Your task to perform on an android device: What is the news today? Image 0: 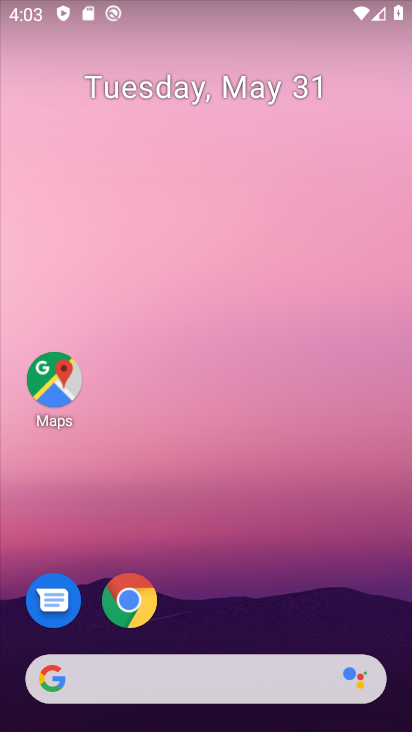
Step 0: drag from (243, 601) to (160, 103)
Your task to perform on an android device: What is the news today? Image 1: 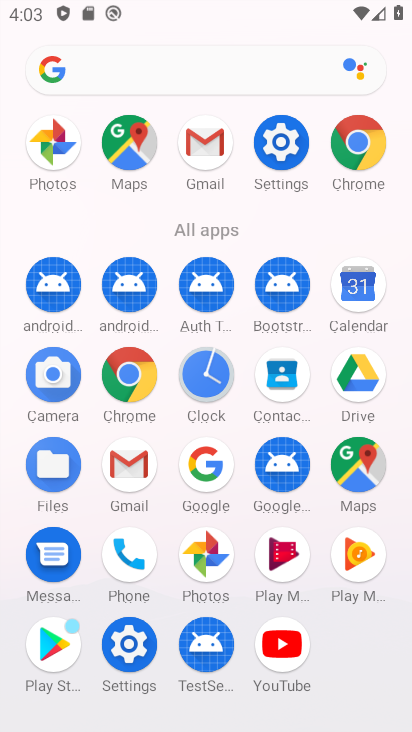
Step 1: click (202, 460)
Your task to perform on an android device: What is the news today? Image 2: 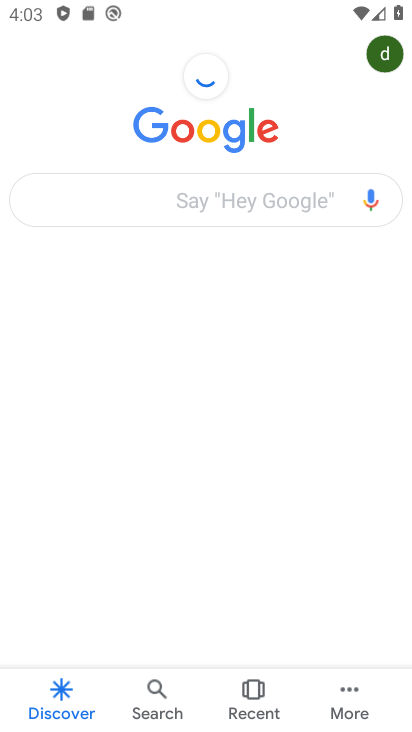
Step 2: click (222, 196)
Your task to perform on an android device: What is the news today? Image 3: 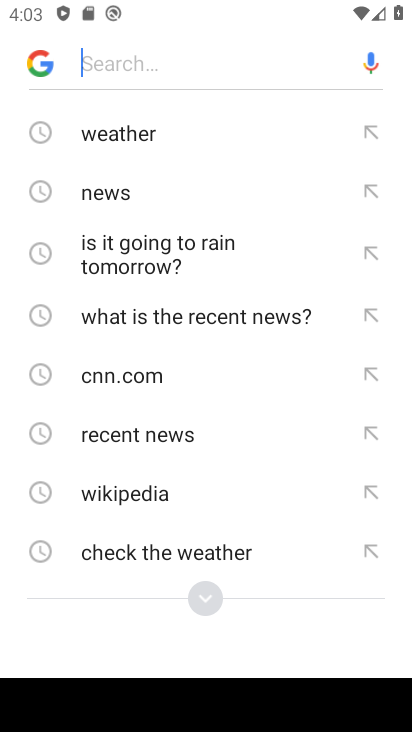
Step 3: type "news today"
Your task to perform on an android device: What is the news today? Image 4: 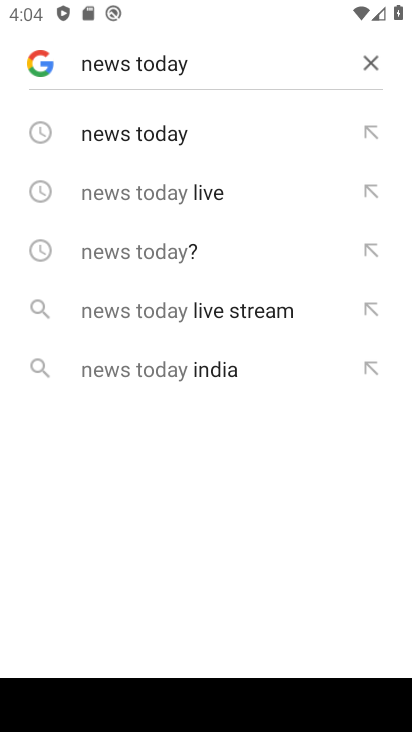
Step 4: click (149, 139)
Your task to perform on an android device: What is the news today? Image 5: 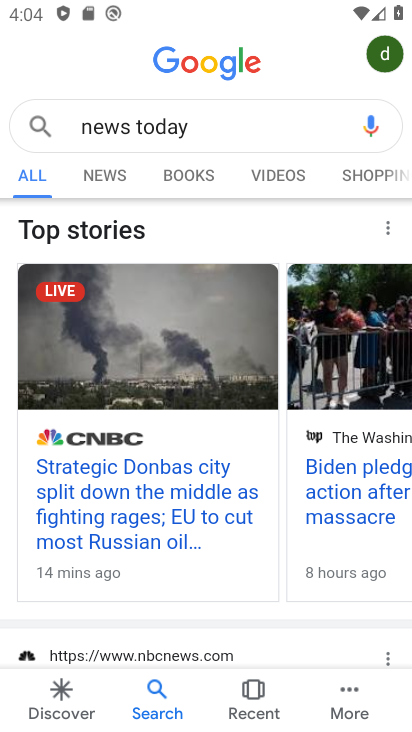
Step 5: click (158, 535)
Your task to perform on an android device: What is the news today? Image 6: 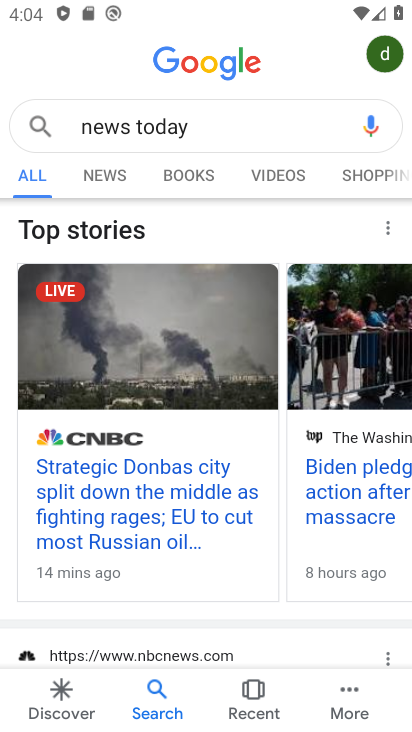
Step 6: task complete